Your task to perform on an android device: move an email to a new category in the gmail app Image 0: 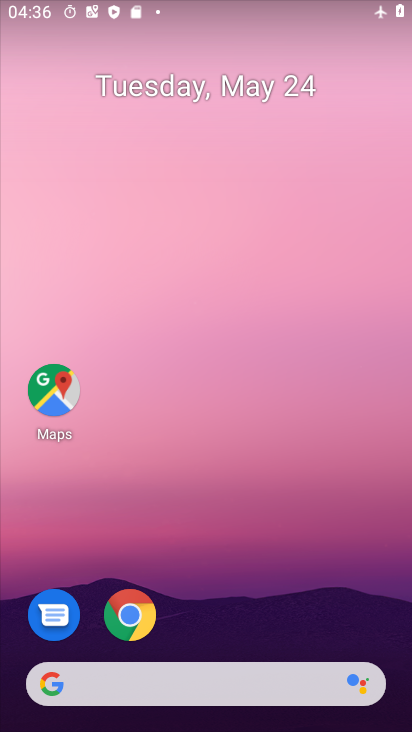
Step 0: drag from (257, 557) to (322, 39)
Your task to perform on an android device: move an email to a new category in the gmail app Image 1: 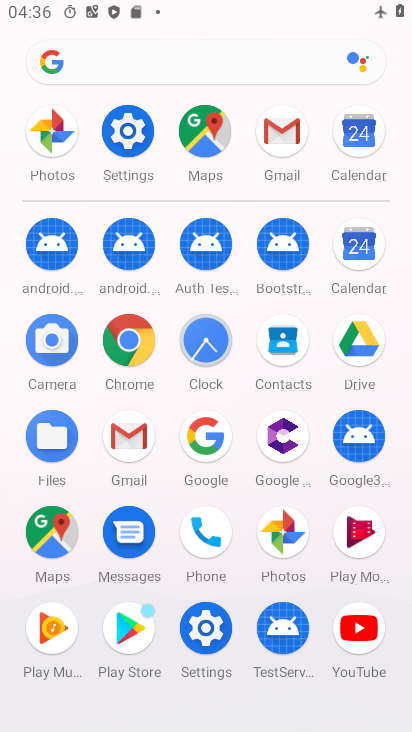
Step 1: click (282, 121)
Your task to perform on an android device: move an email to a new category in the gmail app Image 2: 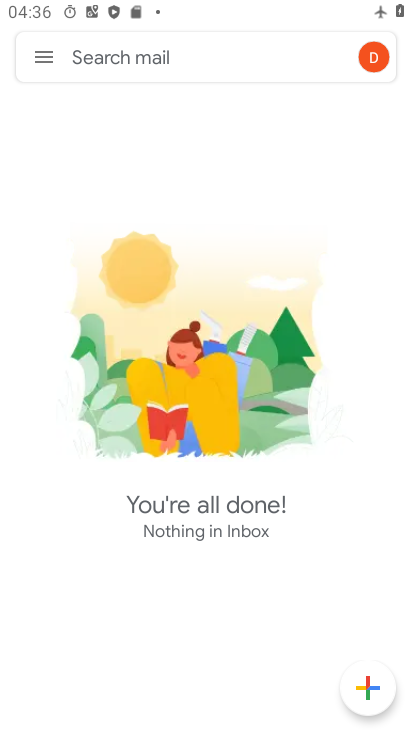
Step 2: click (38, 56)
Your task to perform on an android device: move an email to a new category in the gmail app Image 3: 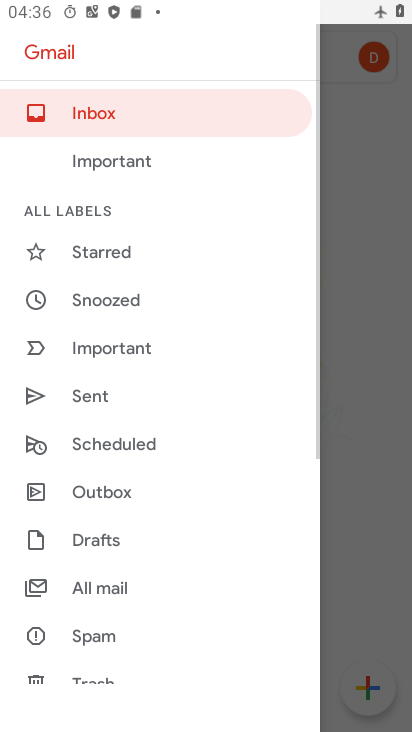
Step 3: click (60, 592)
Your task to perform on an android device: move an email to a new category in the gmail app Image 4: 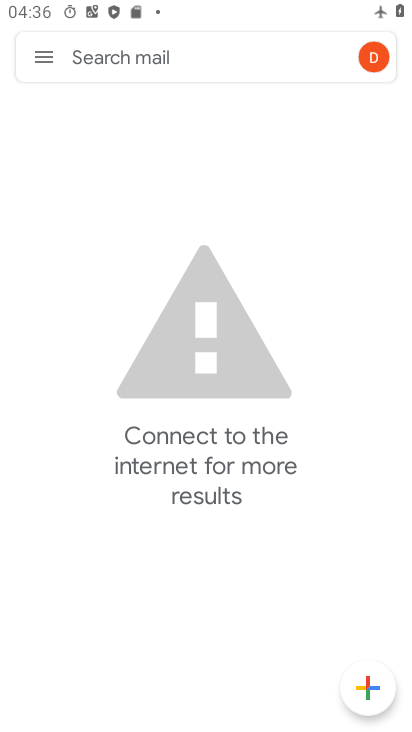
Step 4: drag from (321, 2) to (302, 344)
Your task to perform on an android device: move an email to a new category in the gmail app Image 5: 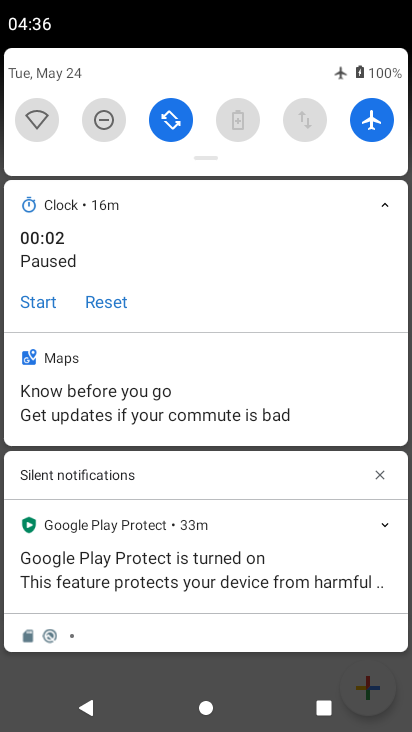
Step 5: click (374, 119)
Your task to perform on an android device: move an email to a new category in the gmail app Image 6: 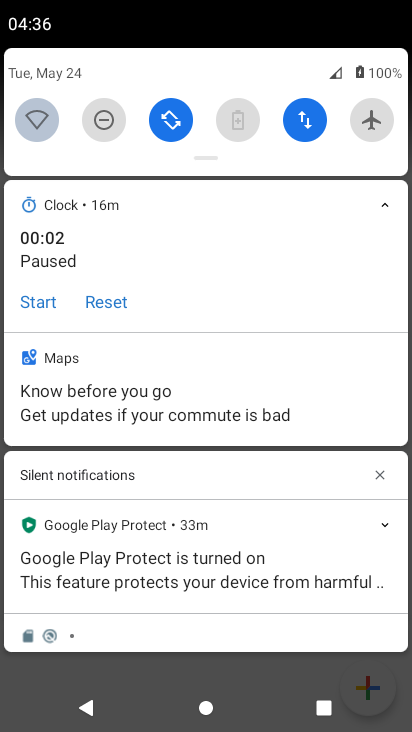
Step 6: click (240, 668)
Your task to perform on an android device: move an email to a new category in the gmail app Image 7: 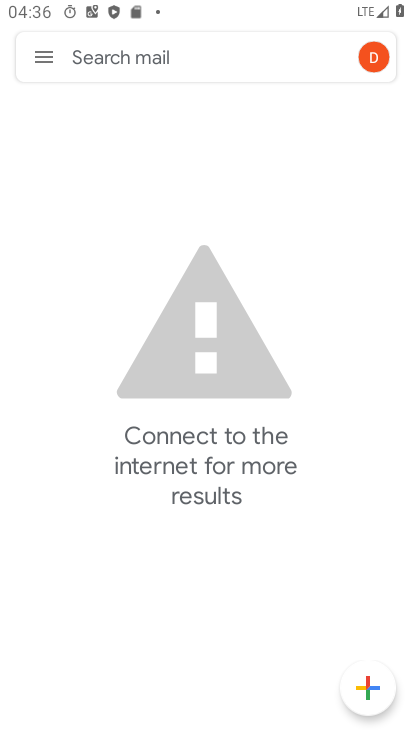
Step 7: task complete